Your task to perform on an android device: What's on my calendar today? Image 0: 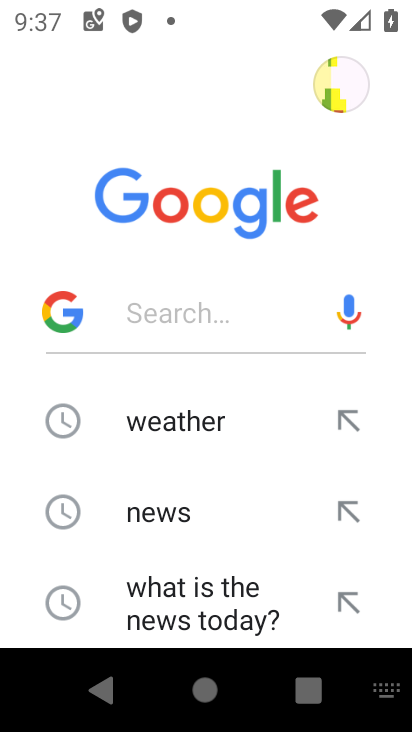
Step 0: press home button
Your task to perform on an android device: What's on my calendar today? Image 1: 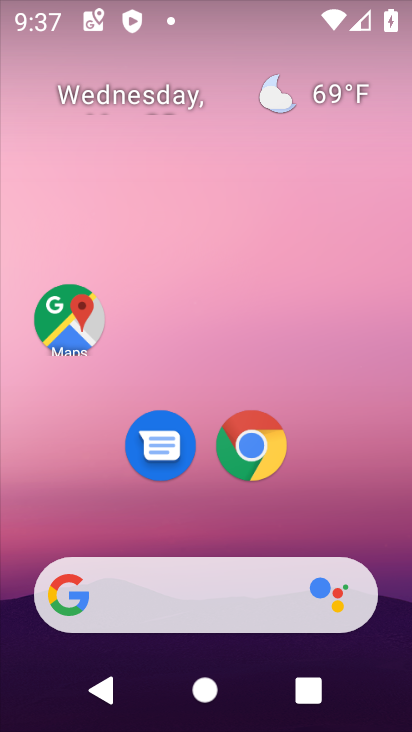
Step 1: drag from (393, 541) to (343, 82)
Your task to perform on an android device: What's on my calendar today? Image 2: 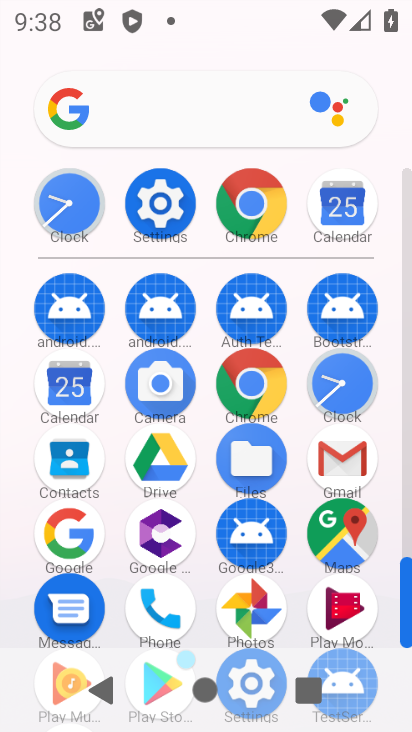
Step 2: click (68, 379)
Your task to perform on an android device: What's on my calendar today? Image 3: 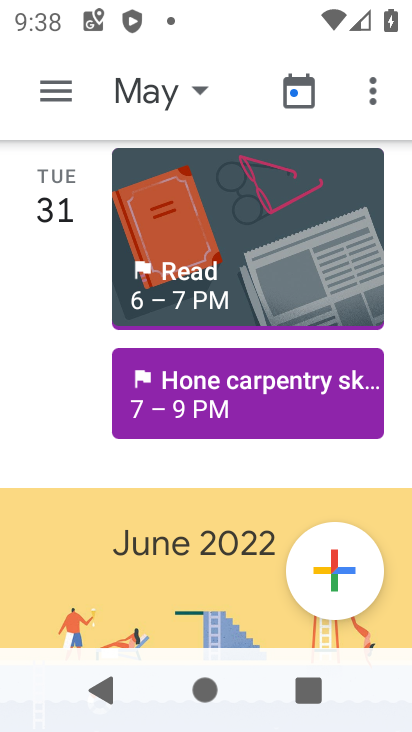
Step 3: click (218, 85)
Your task to perform on an android device: What's on my calendar today? Image 4: 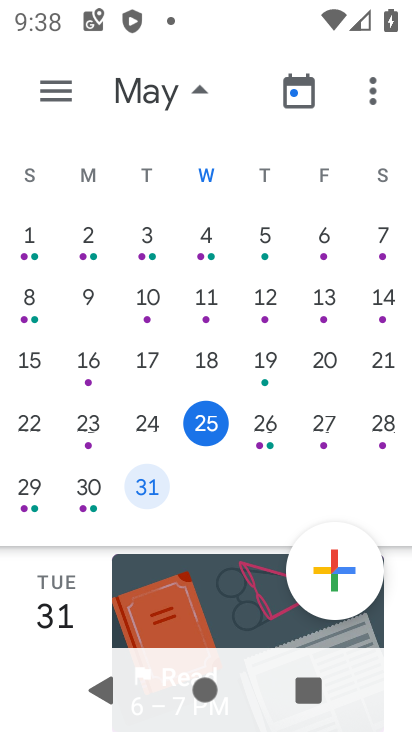
Step 4: click (262, 431)
Your task to perform on an android device: What's on my calendar today? Image 5: 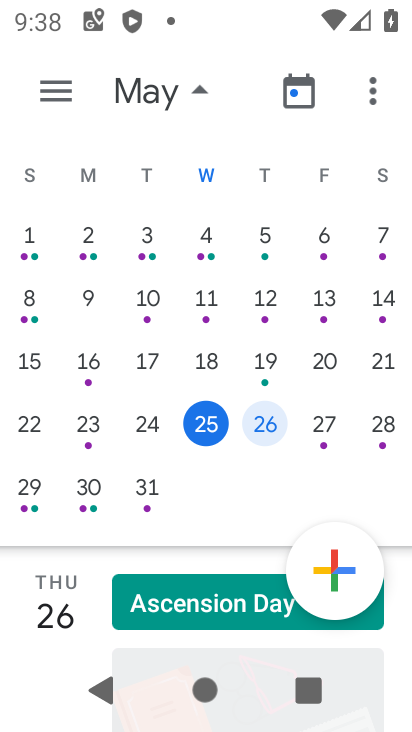
Step 5: click (193, 95)
Your task to perform on an android device: What's on my calendar today? Image 6: 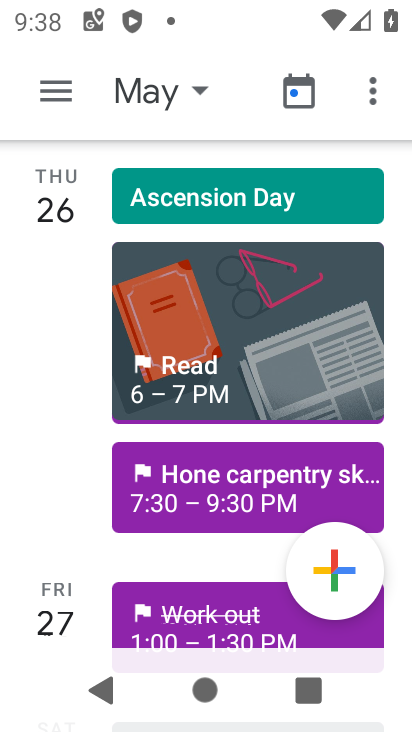
Step 6: task complete